Your task to perform on an android device: Open the calendar app, open the side menu, and click the "Day" option Image 0: 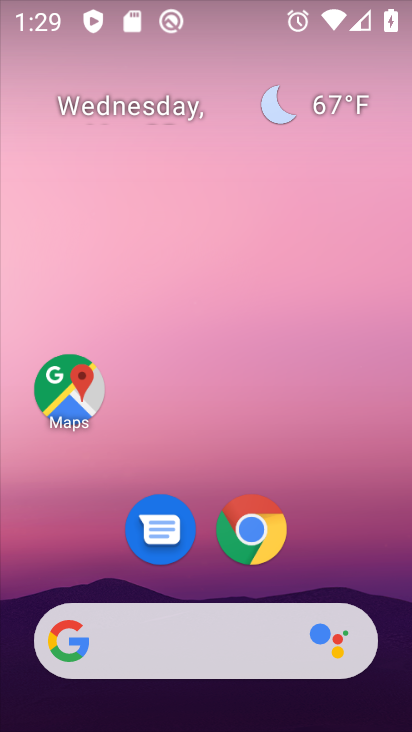
Step 0: drag from (336, 566) to (309, 116)
Your task to perform on an android device: Open the calendar app, open the side menu, and click the "Day" option Image 1: 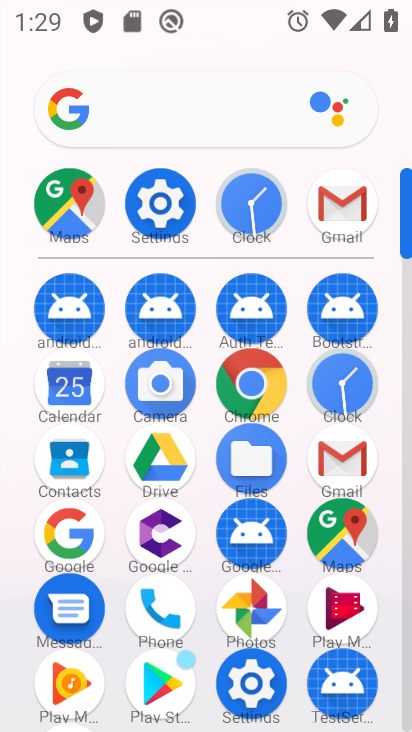
Step 1: click (71, 388)
Your task to perform on an android device: Open the calendar app, open the side menu, and click the "Day" option Image 2: 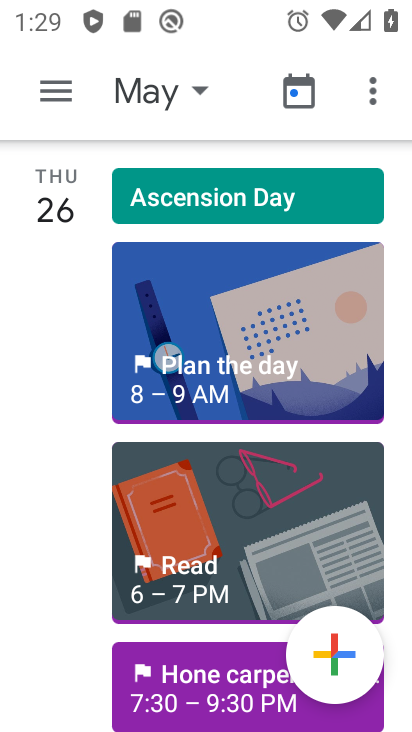
Step 2: click (58, 91)
Your task to perform on an android device: Open the calendar app, open the side menu, and click the "Day" option Image 3: 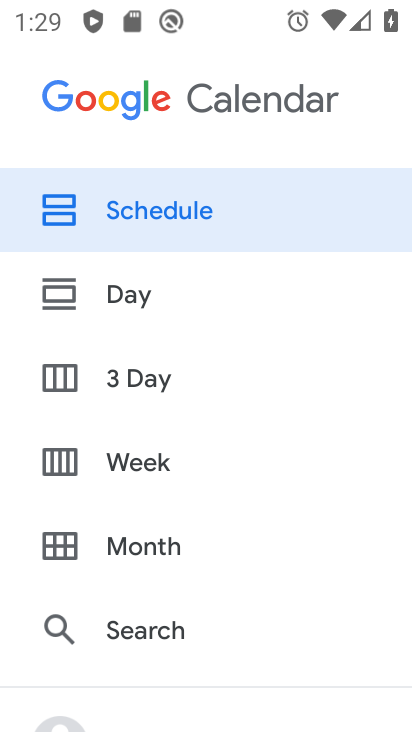
Step 3: click (124, 301)
Your task to perform on an android device: Open the calendar app, open the side menu, and click the "Day" option Image 4: 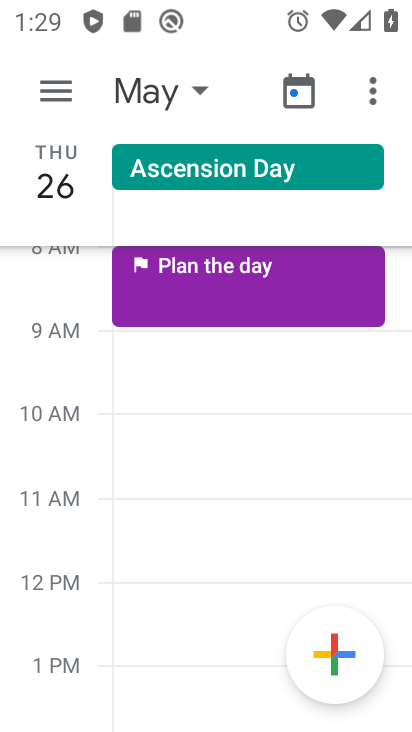
Step 4: task complete